Your task to perform on an android device: Add "logitech g pro" to the cart on costco.com Image 0: 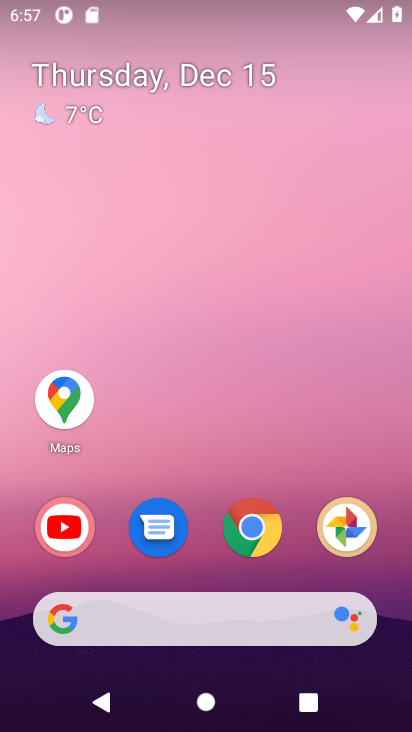
Step 0: click (270, 516)
Your task to perform on an android device: Add "logitech g pro" to the cart on costco.com Image 1: 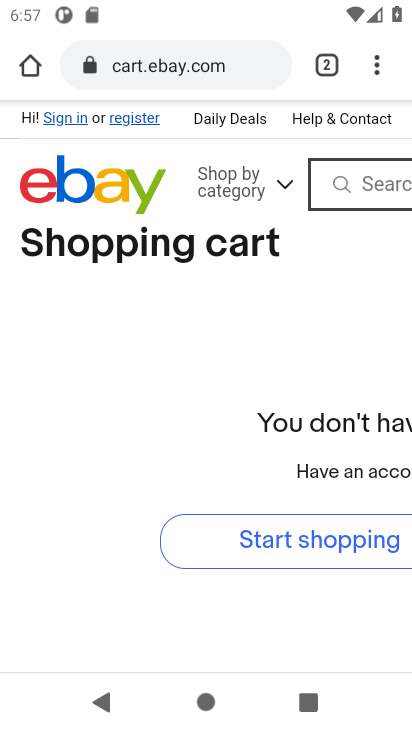
Step 1: click (212, 54)
Your task to perform on an android device: Add "logitech g pro" to the cart on costco.com Image 2: 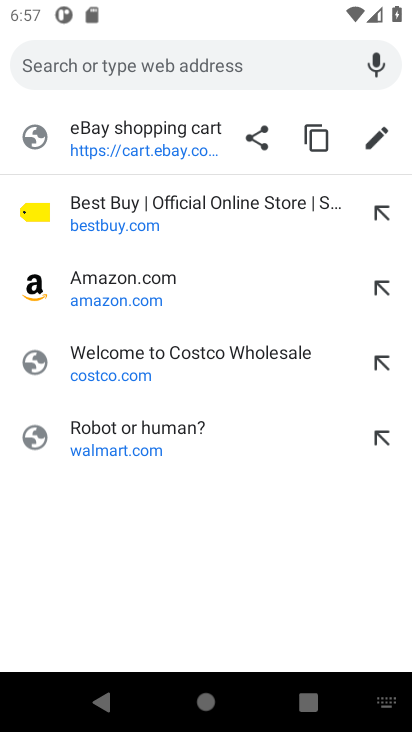
Step 2: click (192, 352)
Your task to perform on an android device: Add "logitech g pro" to the cart on costco.com Image 3: 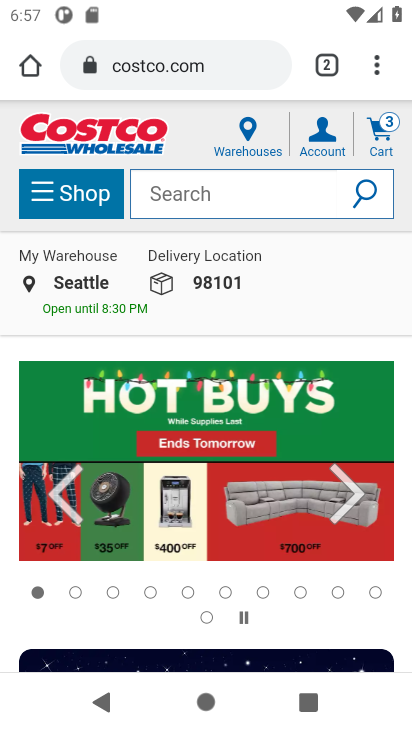
Step 3: click (174, 186)
Your task to perform on an android device: Add "logitech g pro" to the cart on costco.com Image 4: 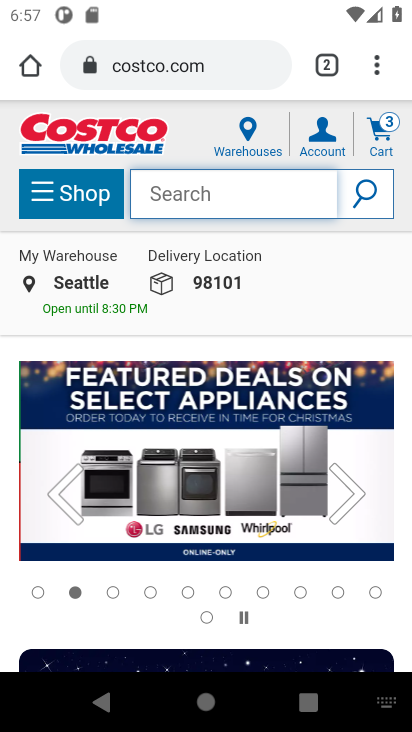
Step 4: type "logitech gpro"
Your task to perform on an android device: Add "logitech g pro" to the cart on costco.com Image 5: 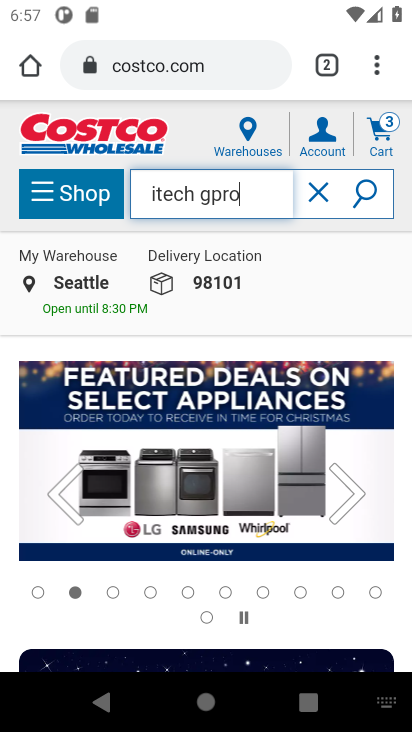
Step 5: click (364, 185)
Your task to perform on an android device: Add "logitech g pro" to the cart on costco.com Image 6: 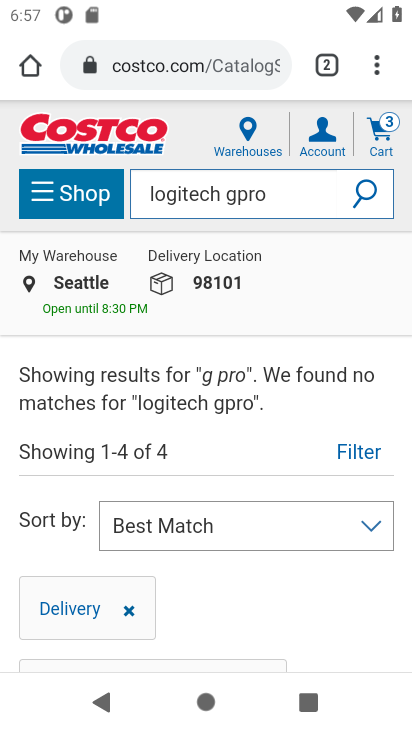
Step 6: task complete